Your task to perform on an android device: toggle airplane mode Image 0: 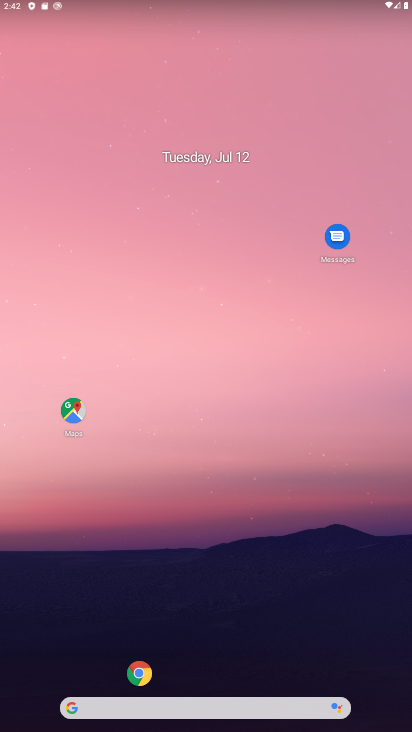
Step 0: drag from (79, 473) to (240, 1)
Your task to perform on an android device: toggle airplane mode Image 1: 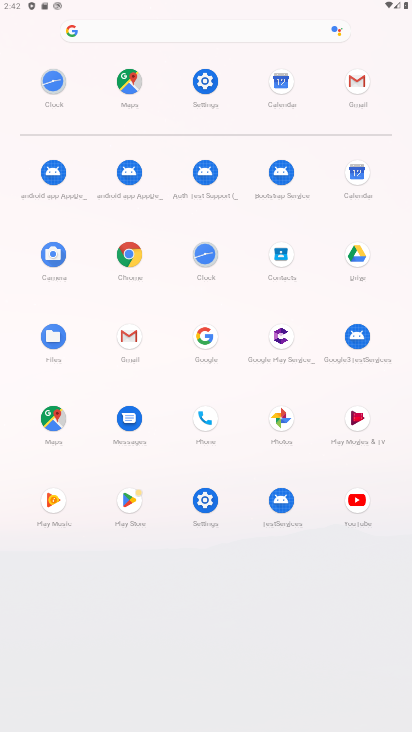
Step 1: click (203, 502)
Your task to perform on an android device: toggle airplane mode Image 2: 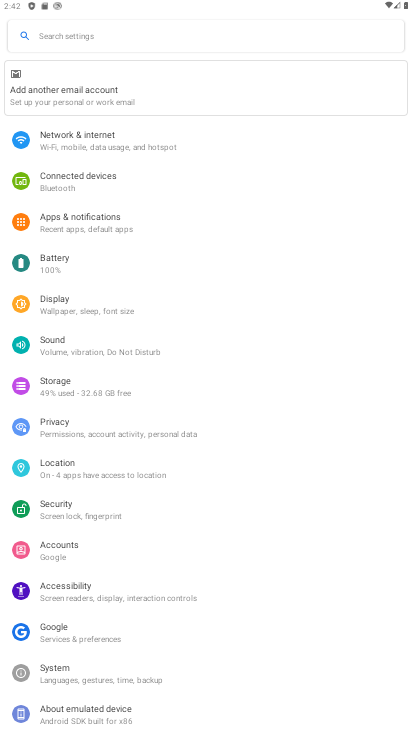
Step 2: click (103, 149)
Your task to perform on an android device: toggle airplane mode Image 3: 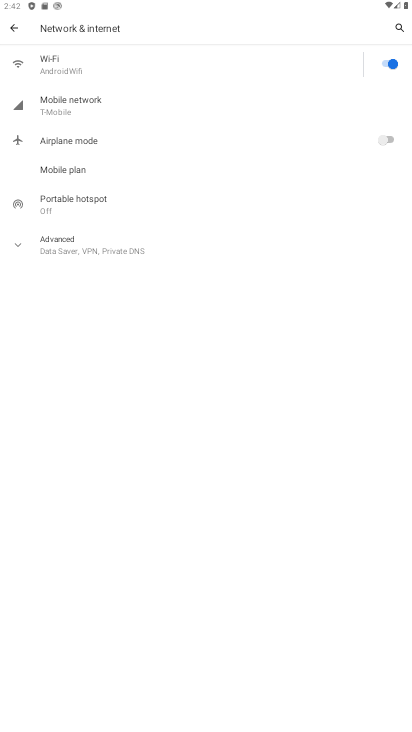
Step 3: click (89, 247)
Your task to perform on an android device: toggle airplane mode Image 4: 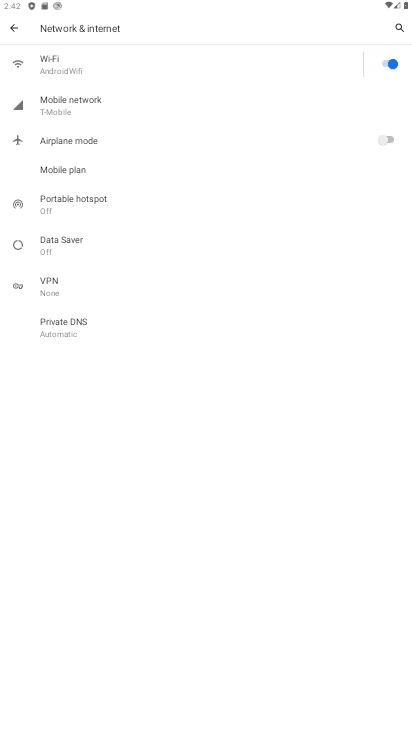
Step 4: task complete